Your task to perform on an android device: turn vacation reply on in the gmail app Image 0: 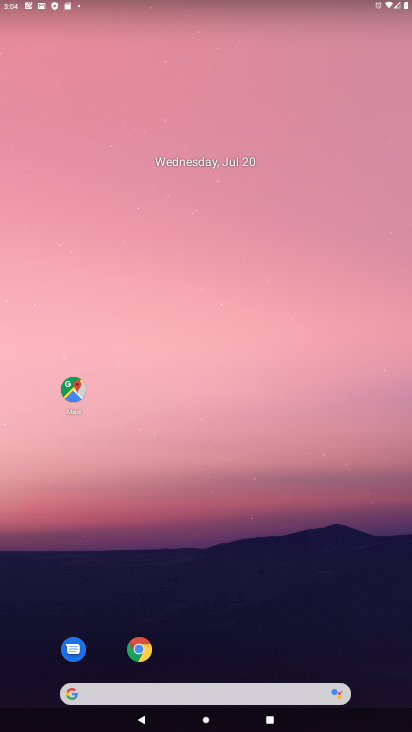
Step 0: drag from (213, 693) to (304, 263)
Your task to perform on an android device: turn vacation reply on in the gmail app Image 1: 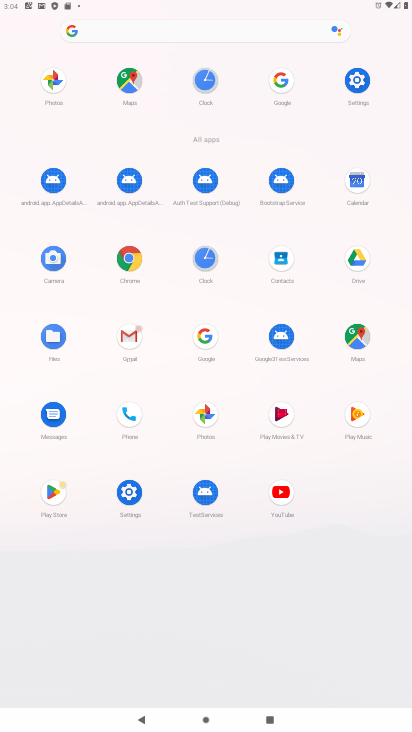
Step 1: click (128, 335)
Your task to perform on an android device: turn vacation reply on in the gmail app Image 2: 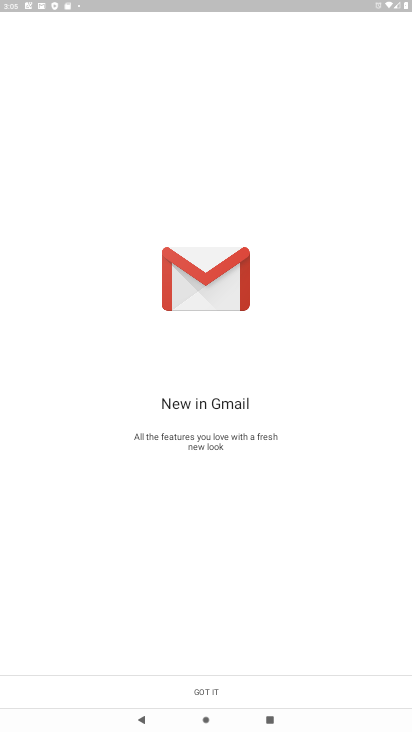
Step 2: click (197, 692)
Your task to perform on an android device: turn vacation reply on in the gmail app Image 3: 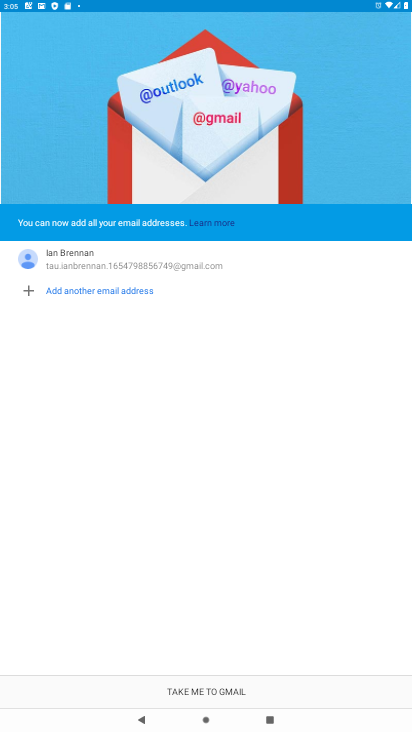
Step 3: click (197, 692)
Your task to perform on an android device: turn vacation reply on in the gmail app Image 4: 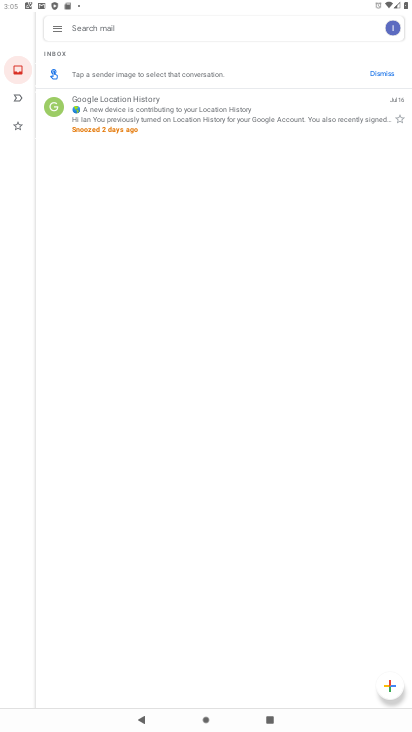
Step 4: click (60, 26)
Your task to perform on an android device: turn vacation reply on in the gmail app Image 5: 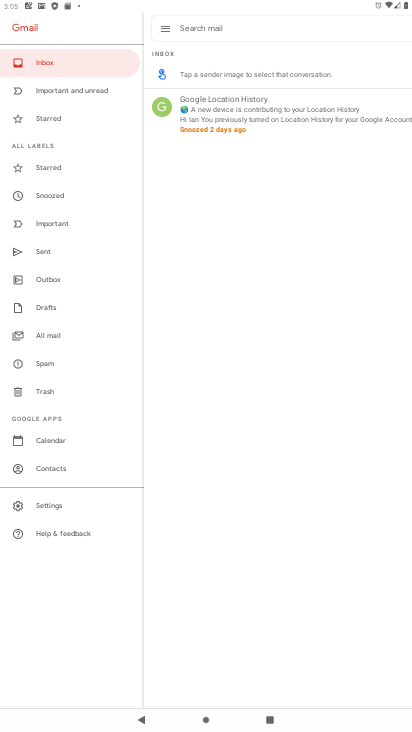
Step 5: click (50, 503)
Your task to perform on an android device: turn vacation reply on in the gmail app Image 6: 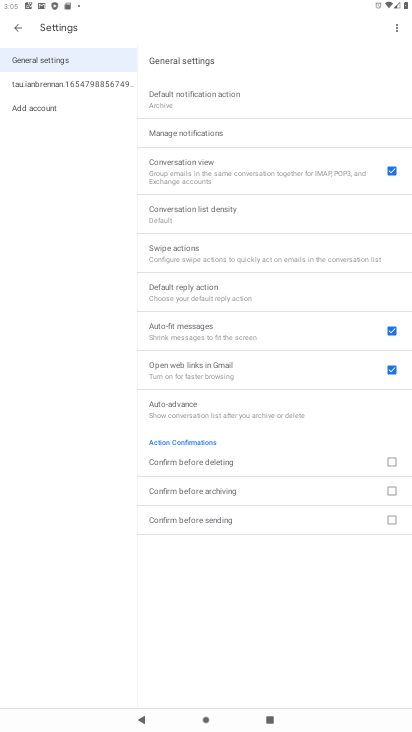
Step 6: click (66, 84)
Your task to perform on an android device: turn vacation reply on in the gmail app Image 7: 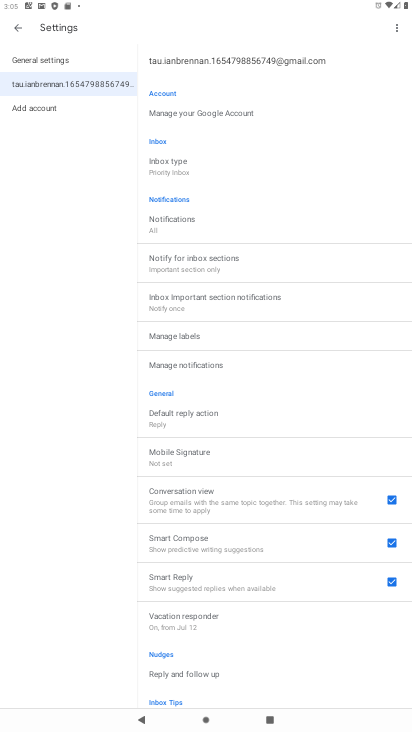
Step 7: click (199, 623)
Your task to perform on an android device: turn vacation reply on in the gmail app Image 8: 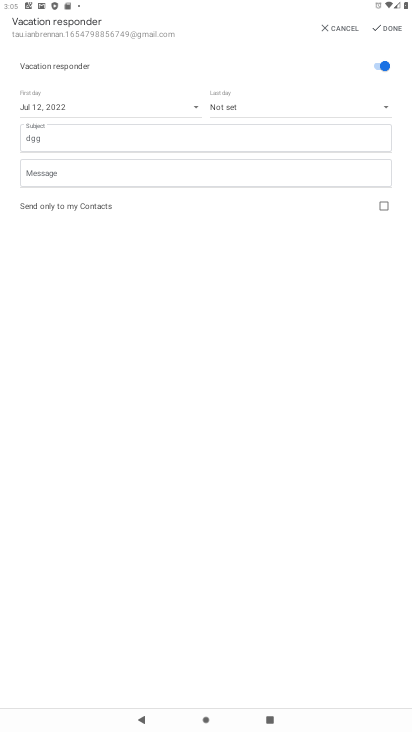
Step 8: task complete